Your task to perform on an android device: Go to Reddit.com Image 0: 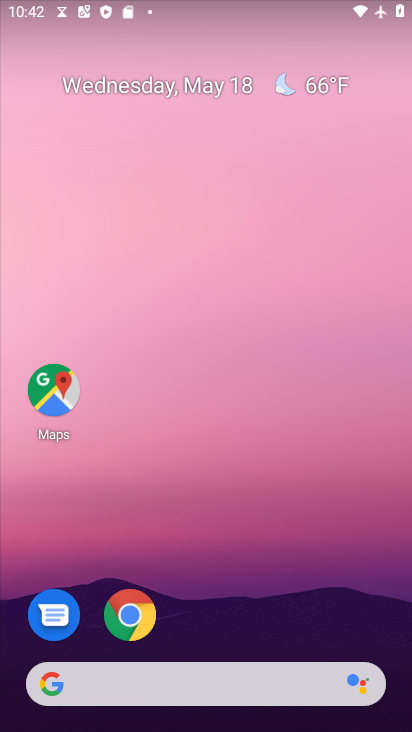
Step 0: drag from (254, 370) to (254, 14)
Your task to perform on an android device: Go to Reddit.com Image 1: 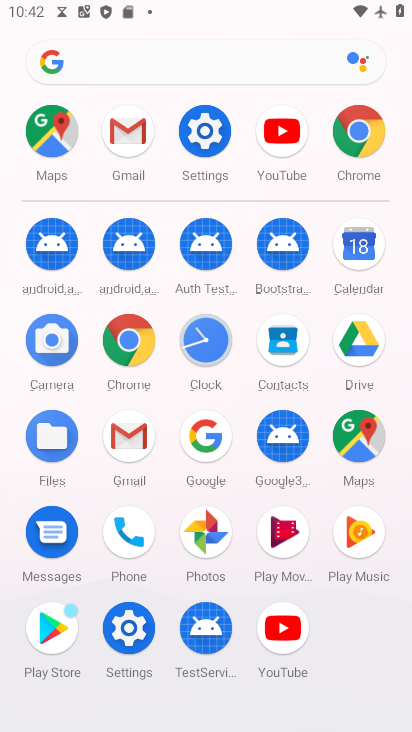
Step 1: drag from (8, 442) to (17, 135)
Your task to perform on an android device: Go to Reddit.com Image 2: 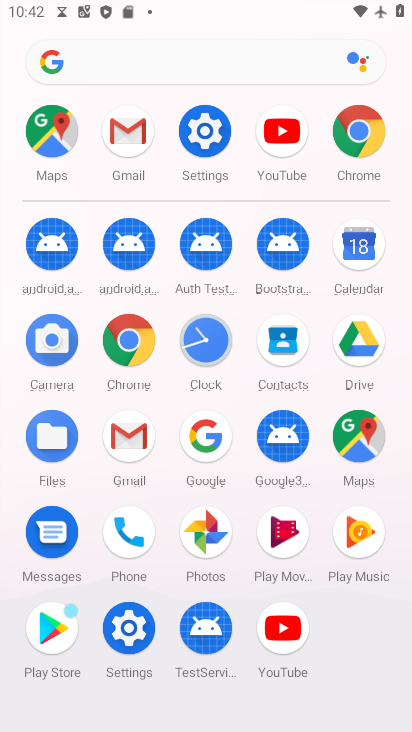
Step 2: click (126, 337)
Your task to perform on an android device: Go to Reddit.com Image 3: 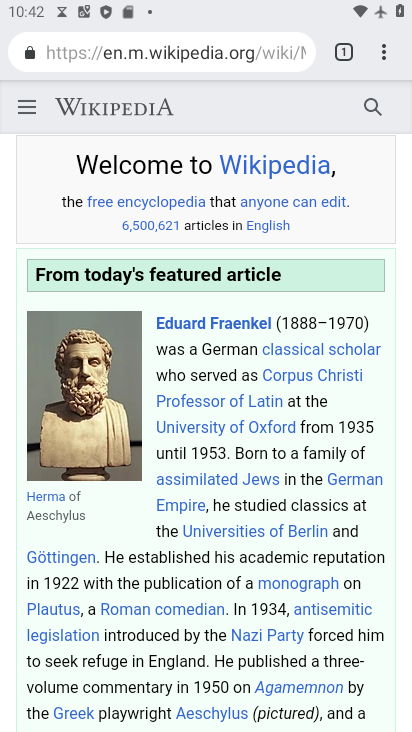
Step 3: click (153, 49)
Your task to perform on an android device: Go to Reddit.com Image 4: 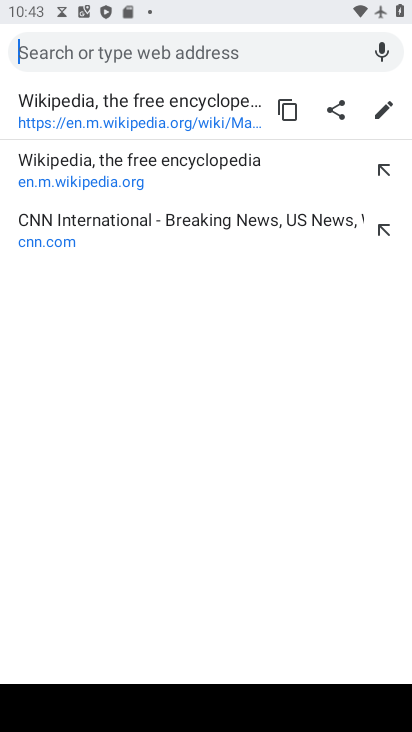
Step 4: type "Reddit.com"
Your task to perform on an android device: Go to Reddit.com Image 5: 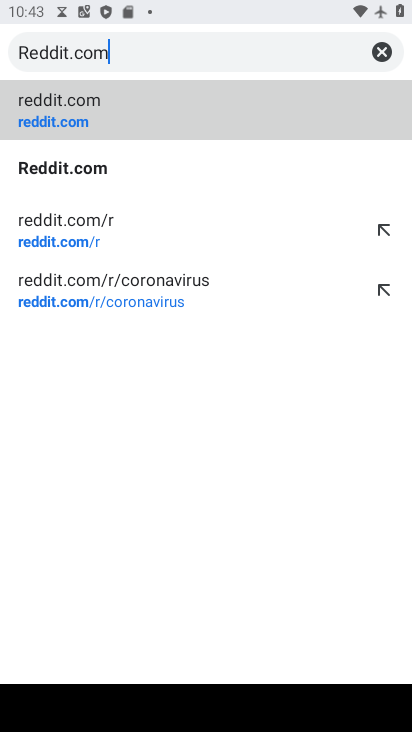
Step 5: click (144, 104)
Your task to perform on an android device: Go to Reddit.com Image 6: 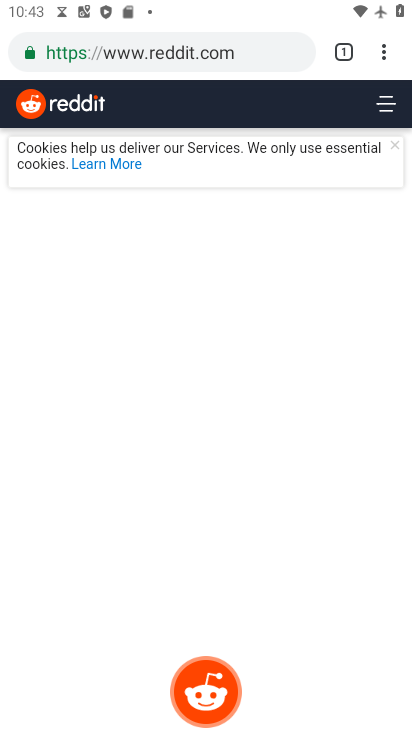
Step 6: task complete